Your task to perform on an android device: Go to Wikipedia Image 0: 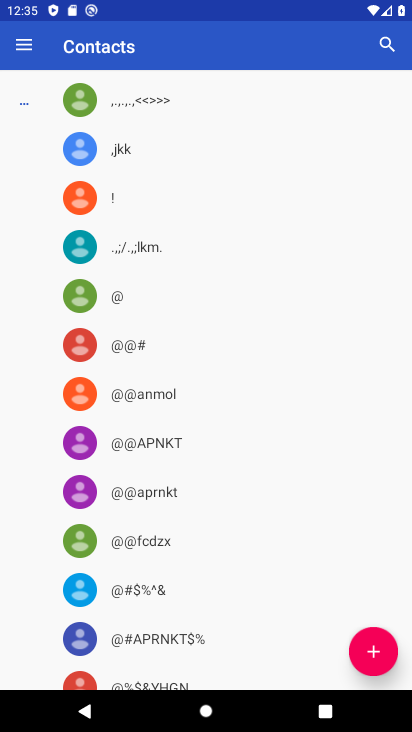
Step 0: press home button
Your task to perform on an android device: Go to Wikipedia Image 1: 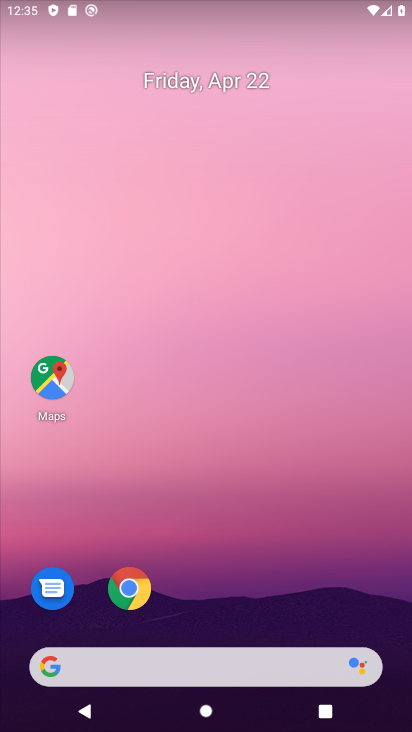
Step 1: drag from (341, 576) to (343, 186)
Your task to perform on an android device: Go to Wikipedia Image 2: 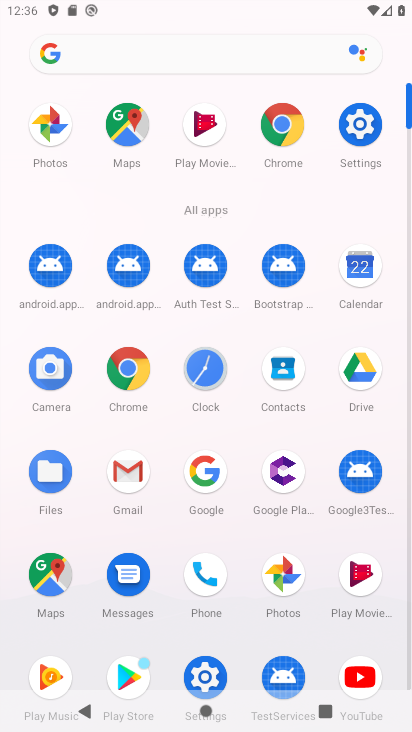
Step 2: click (128, 362)
Your task to perform on an android device: Go to Wikipedia Image 3: 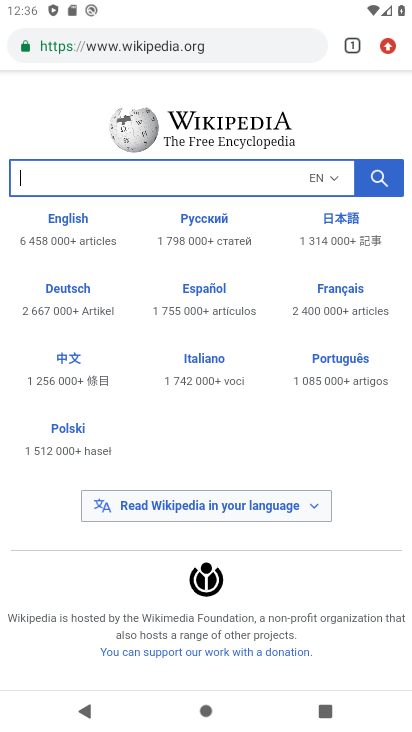
Step 3: task complete